Your task to perform on an android device: Find coffee shops on Maps Image 0: 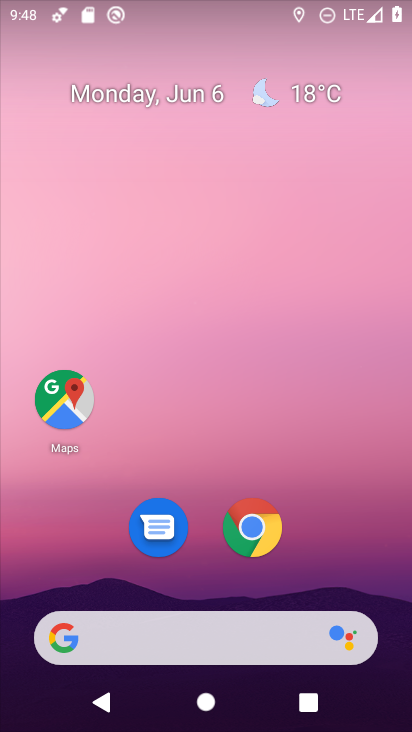
Step 0: drag from (343, 541) to (365, 123)
Your task to perform on an android device: Find coffee shops on Maps Image 1: 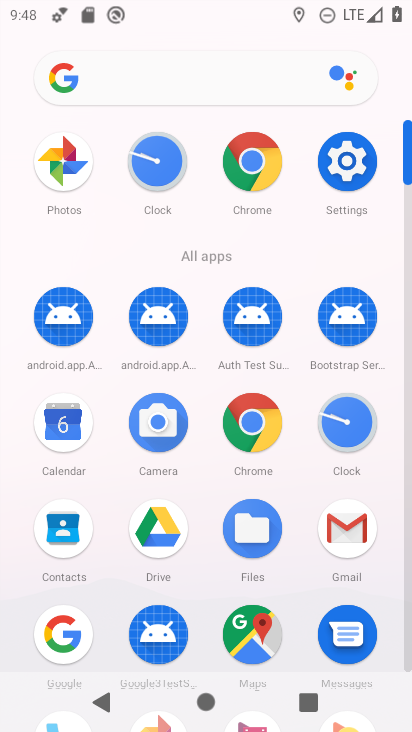
Step 1: click (256, 639)
Your task to perform on an android device: Find coffee shops on Maps Image 2: 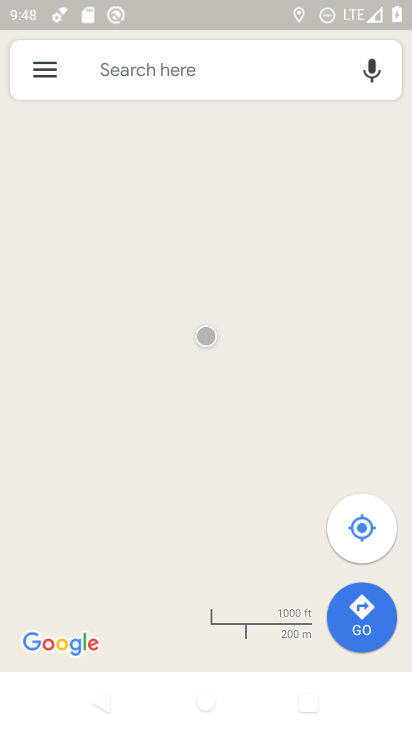
Step 2: click (185, 80)
Your task to perform on an android device: Find coffee shops on Maps Image 3: 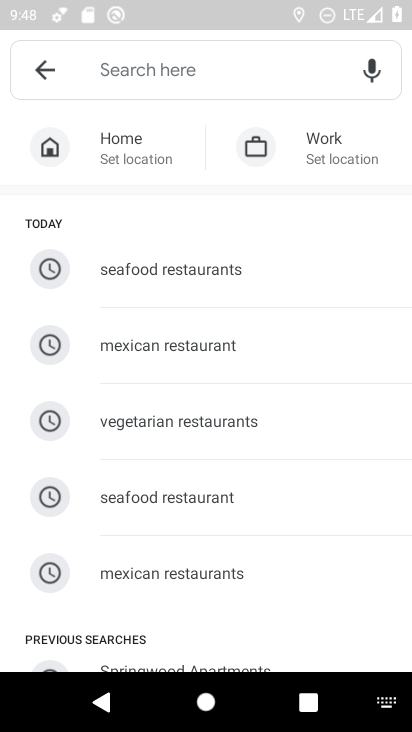
Step 3: type "coffee"
Your task to perform on an android device: Find coffee shops on Maps Image 4: 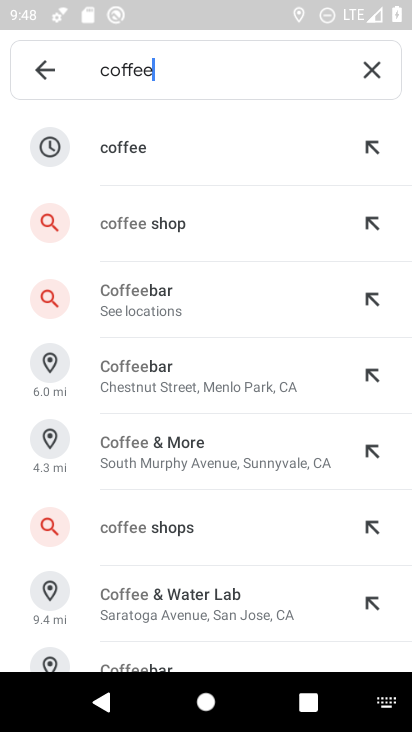
Step 4: click (203, 162)
Your task to perform on an android device: Find coffee shops on Maps Image 5: 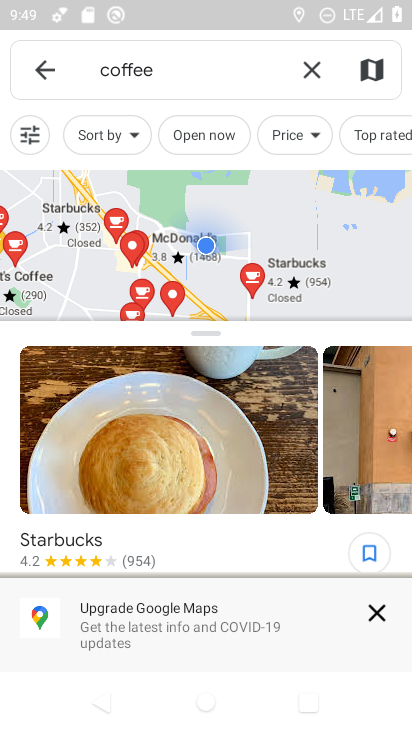
Step 5: task complete